Your task to perform on an android device: Search for Italian restaurants on Maps Image 0: 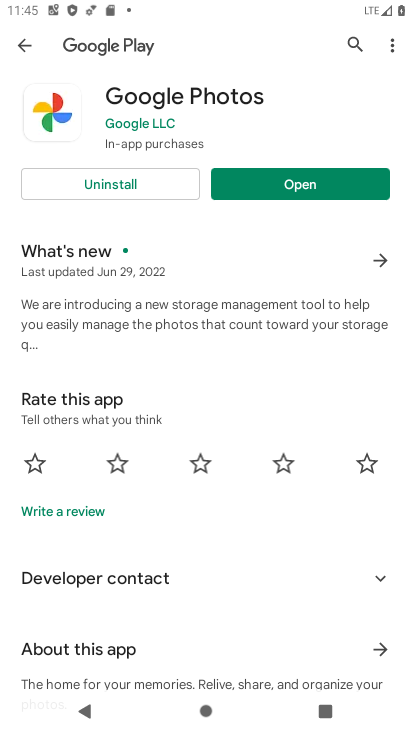
Step 0: press home button
Your task to perform on an android device: Search for Italian restaurants on Maps Image 1: 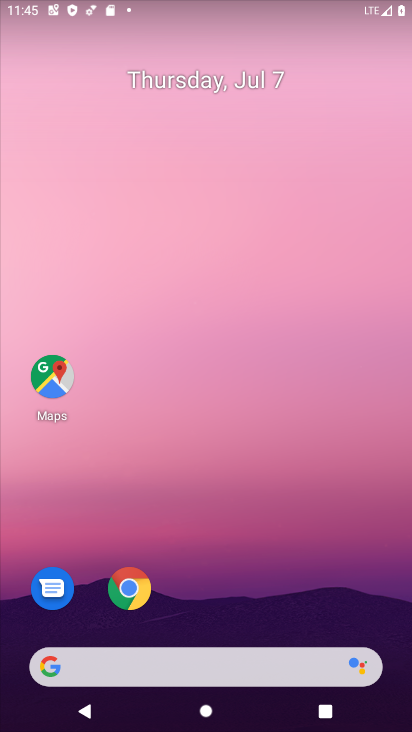
Step 1: drag from (221, 615) to (241, 129)
Your task to perform on an android device: Search for Italian restaurants on Maps Image 2: 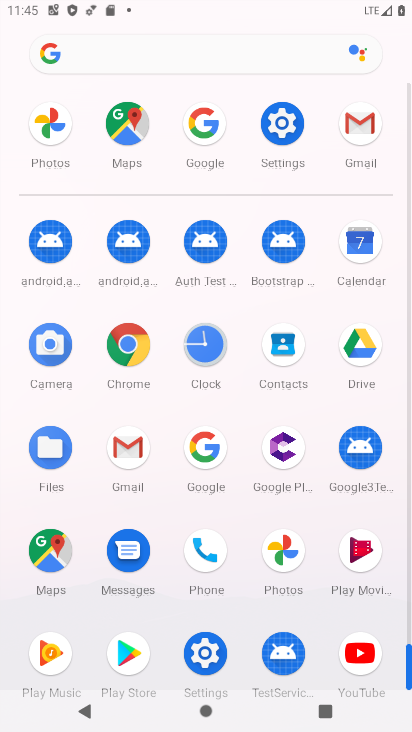
Step 2: click (120, 127)
Your task to perform on an android device: Search for Italian restaurants on Maps Image 3: 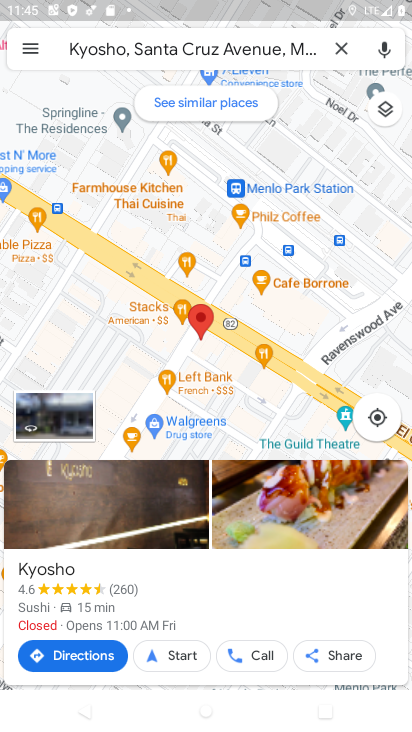
Step 3: click (337, 42)
Your task to perform on an android device: Search for Italian restaurants on Maps Image 4: 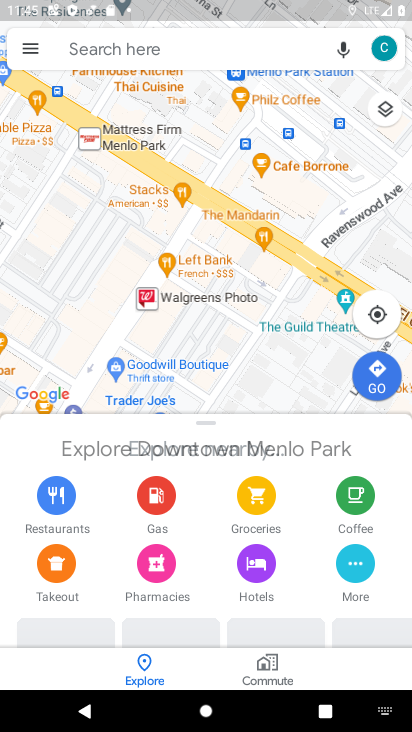
Step 4: click (160, 45)
Your task to perform on an android device: Search for Italian restaurants on Maps Image 5: 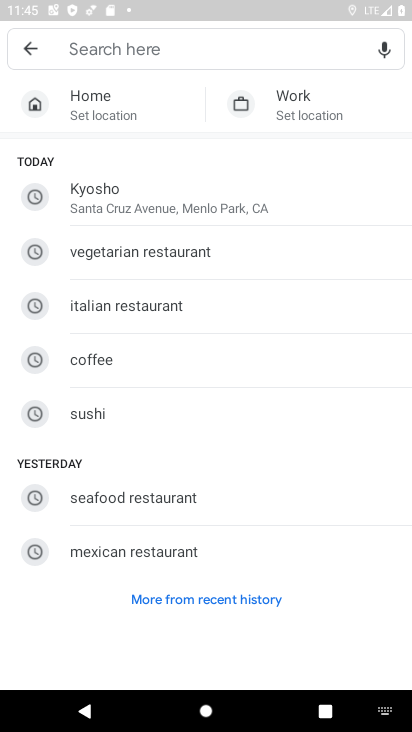
Step 5: click (87, 306)
Your task to perform on an android device: Search for Italian restaurants on Maps Image 6: 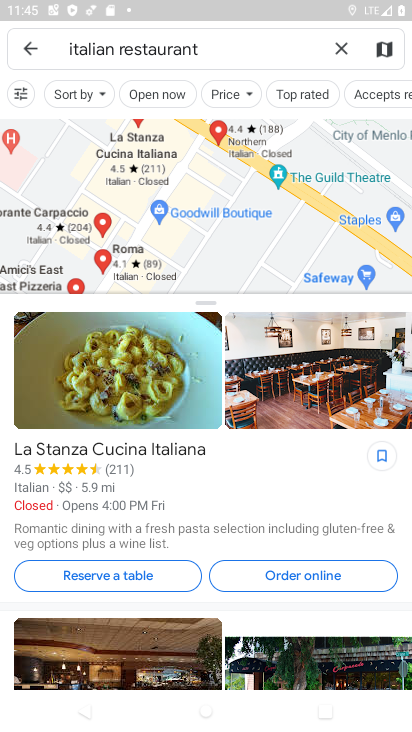
Step 6: task complete